Your task to perform on an android device: Is it going to rain tomorrow? Image 0: 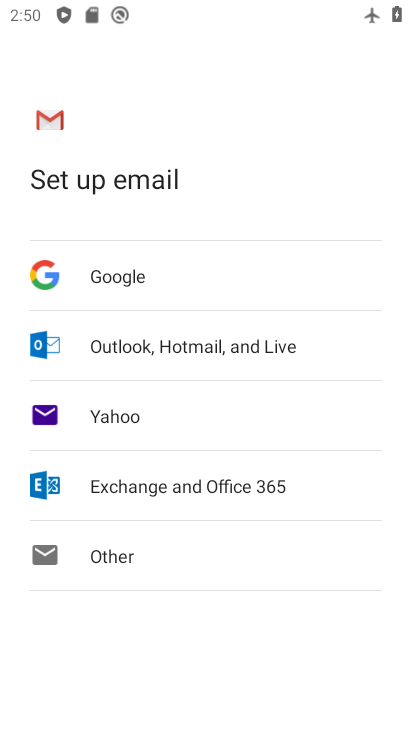
Step 0: press home button
Your task to perform on an android device: Is it going to rain tomorrow? Image 1: 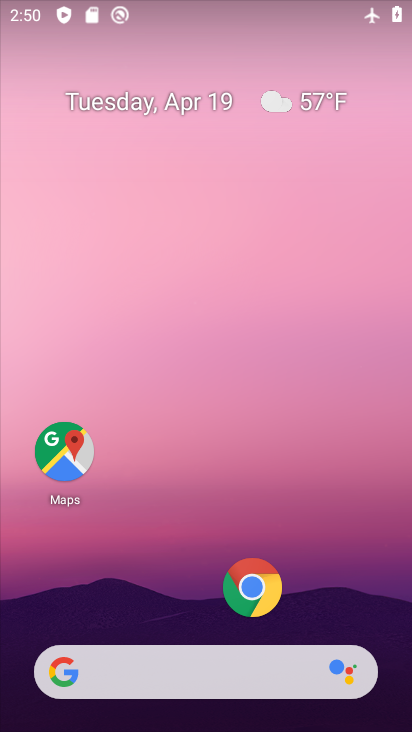
Step 1: click (313, 98)
Your task to perform on an android device: Is it going to rain tomorrow? Image 2: 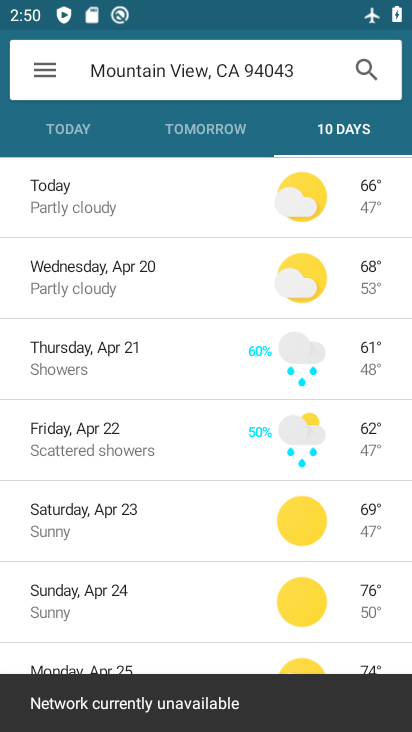
Step 2: click (201, 137)
Your task to perform on an android device: Is it going to rain tomorrow? Image 3: 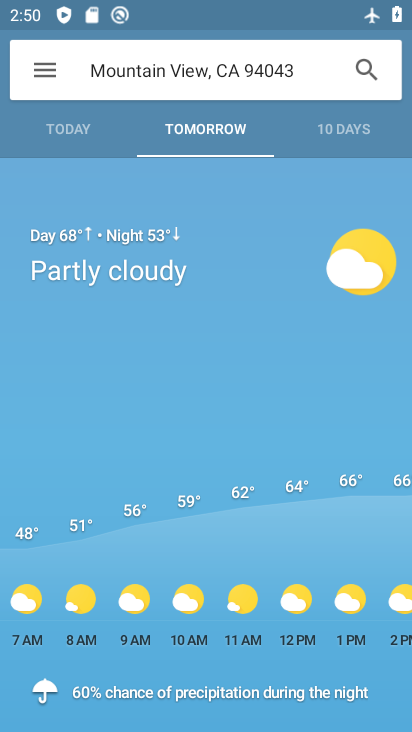
Step 3: task complete